Your task to perform on an android device: check google app version Image 0: 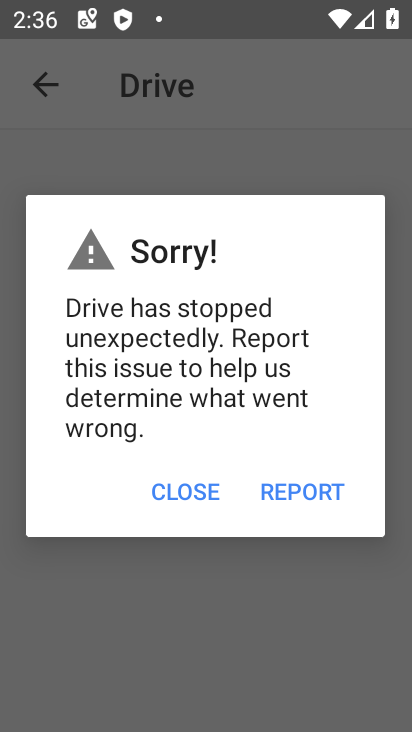
Step 0: press home button
Your task to perform on an android device: check google app version Image 1: 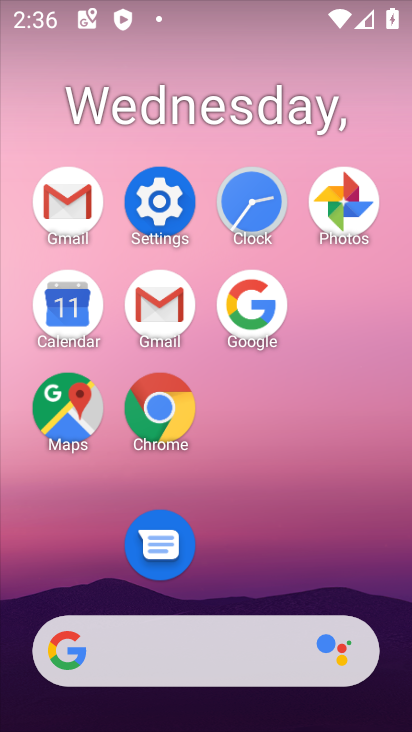
Step 1: click (262, 310)
Your task to perform on an android device: check google app version Image 2: 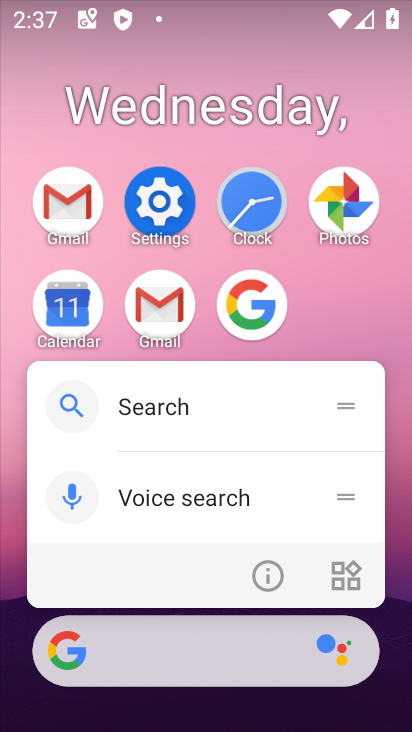
Step 2: click (277, 578)
Your task to perform on an android device: check google app version Image 3: 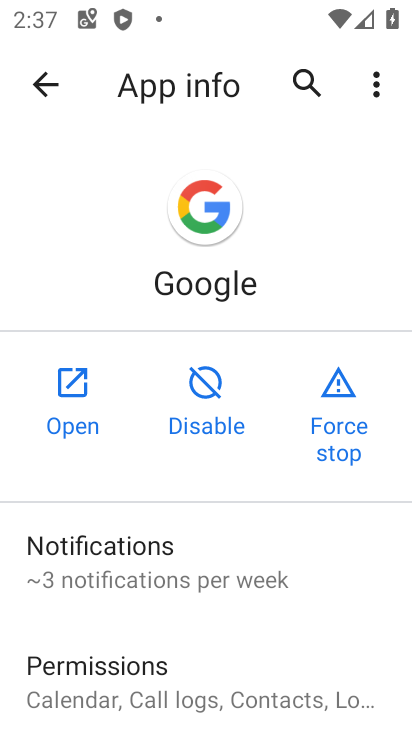
Step 3: drag from (239, 669) to (258, 166)
Your task to perform on an android device: check google app version Image 4: 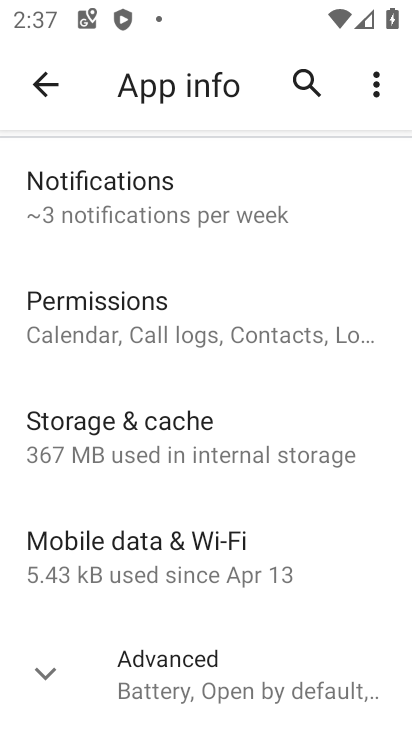
Step 4: click (180, 690)
Your task to perform on an android device: check google app version Image 5: 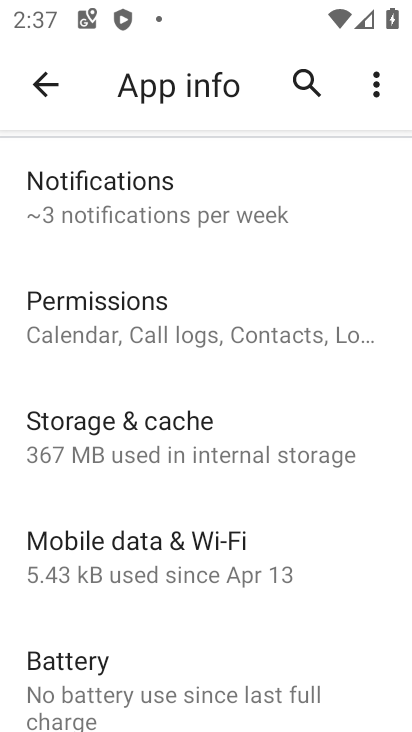
Step 5: task complete